Your task to perform on an android device: toggle show notifications on the lock screen Image 0: 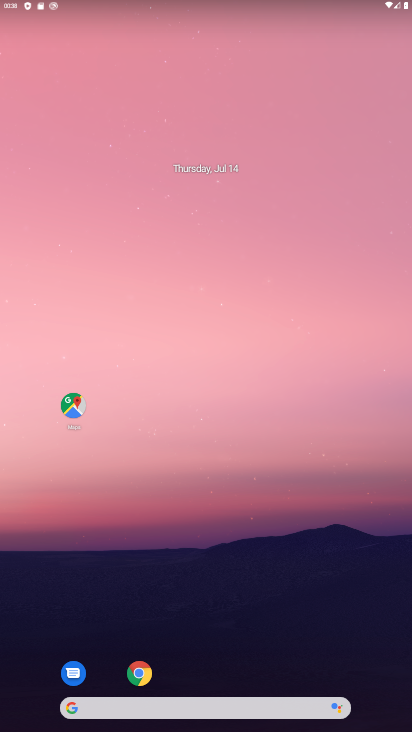
Step 0: drag from (264, 660) to (223, 300)
Your task to perform on an android device: toggle show notifications on the lock screen Image 1: 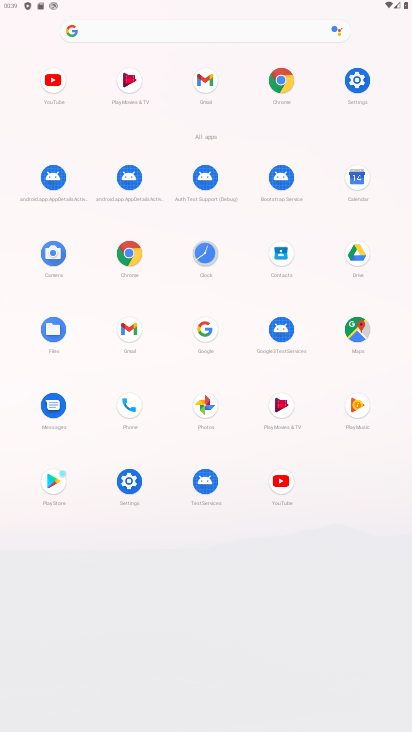
Step 1: click (355, 92)
Your task to perform on an android device: toggle show notifications on the lock screen Image 2: 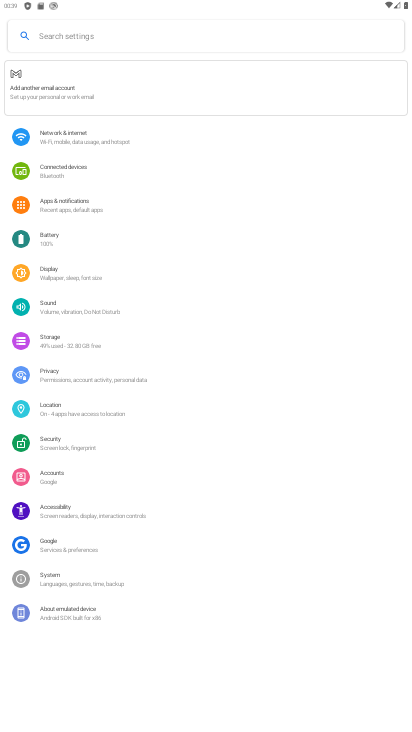
Step 2: click (126, 210)
Your task to perform on an android device: toggle show notifications on the lock screen Image 3: 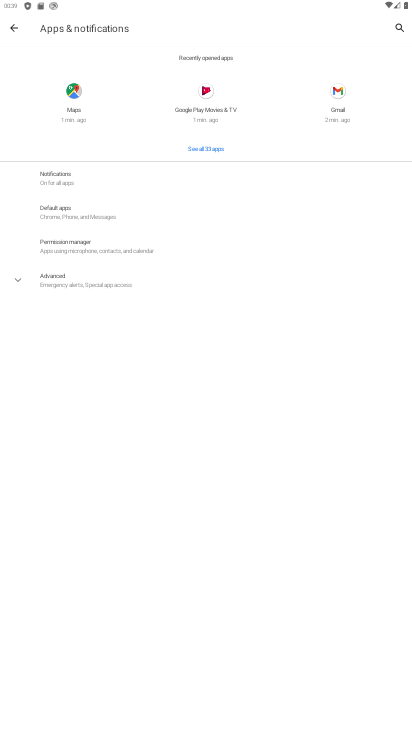
Step 3: click (97, 185)
Your task to perform on an android device: toggle show notifications on the lock screen Image 4: 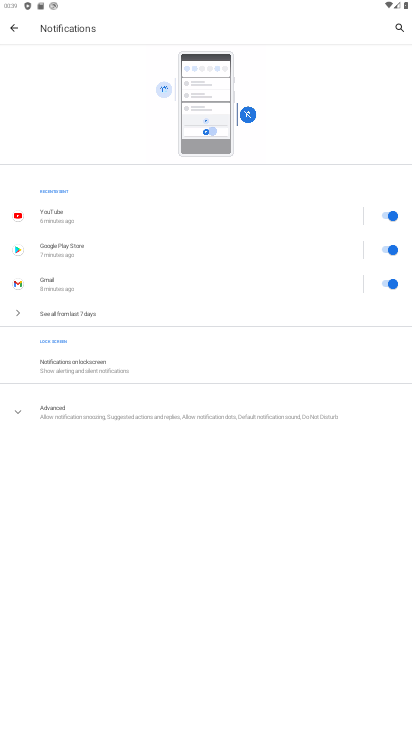
Step 4: click (106, 372)
Your task to perform on an android device: toggle show notifications on the lock screen Image 5: 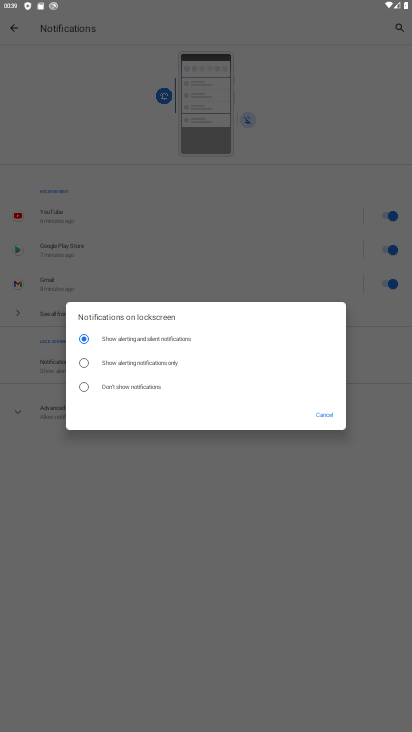
Step 5: click (151, 370)
Your task to perform on an android device: toggle show notifications on the lock screen Image 6: 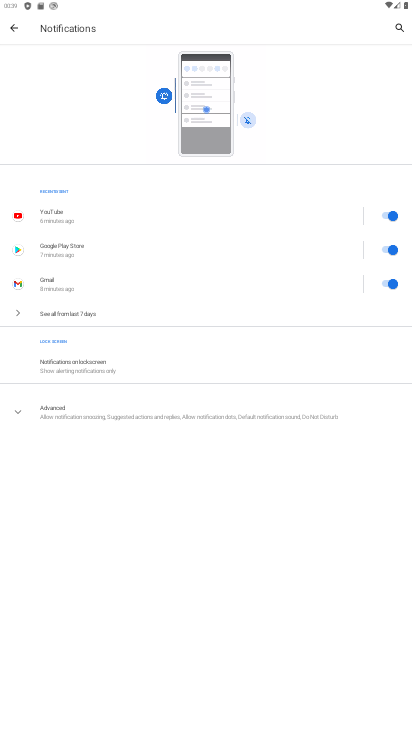
Step 6: task complete